Your task to perform on an android device: Go to Reddit.com Image 0: 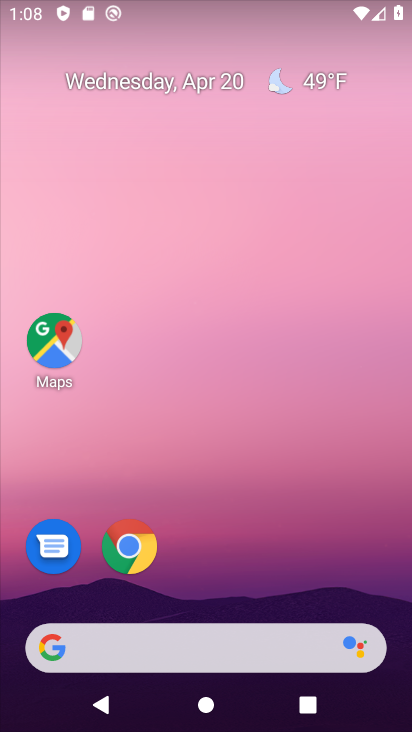
Step 0: drag from (259, 261) to (263, 163)
Your task to perform on an android device: Go to Reddit.com Image 1: 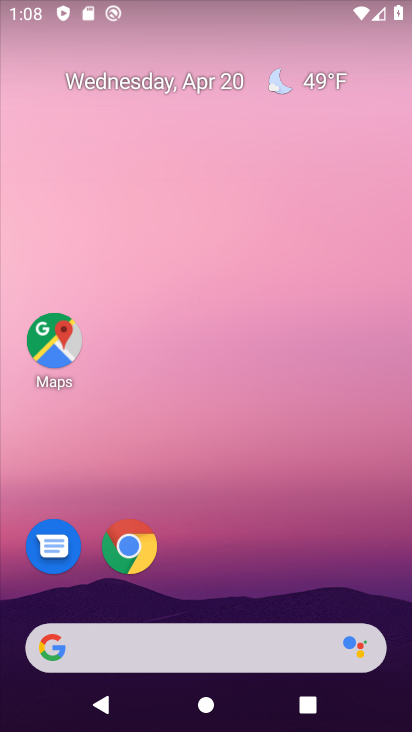
Step 1: drag from (306, 587) to (287, 167)
Your task to perform on an android device: Go to Reddit.com Image 2: 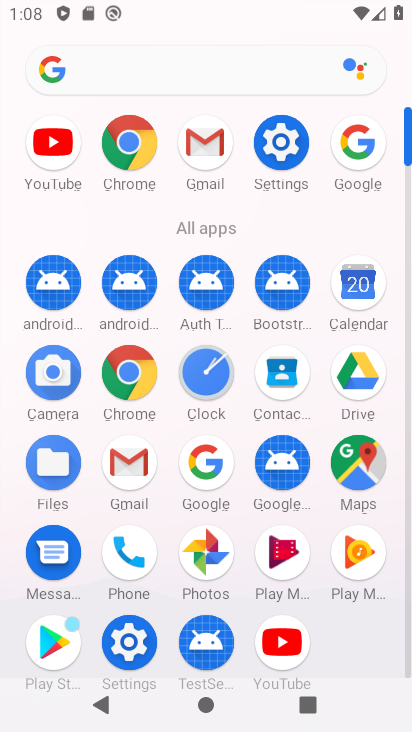
Step 2: click (130, 139)
Your task to perform on an android device: Go to Reddit.com Image 3: 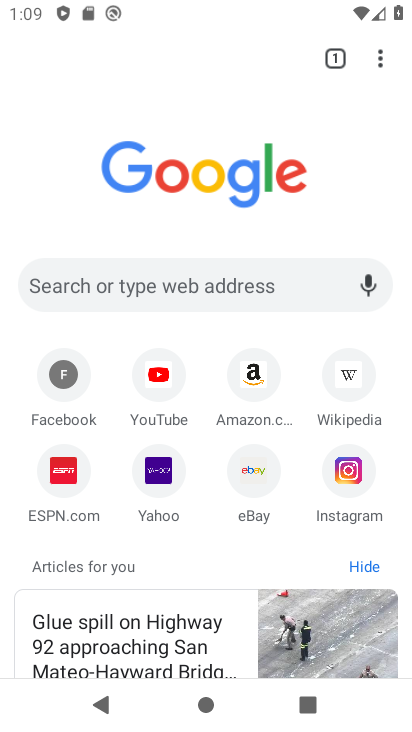
Step 3: click (199, 284)
Your task to perform on an android device: Go to Reddit.com Image 4: 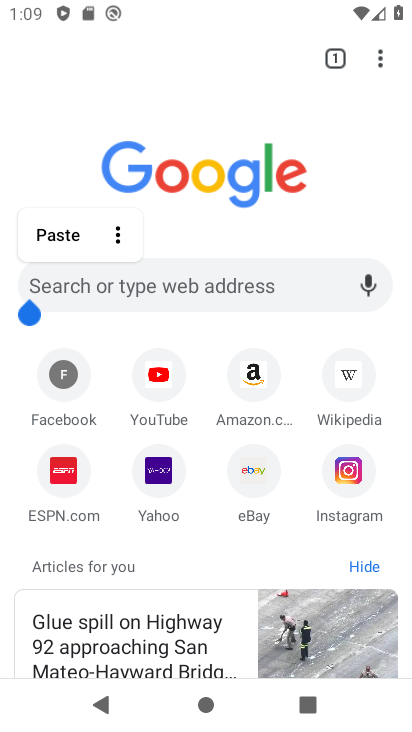
Step 4: type "Reddit.com"
Your task to perform on an android device: Go to Reddit.com Image 5: 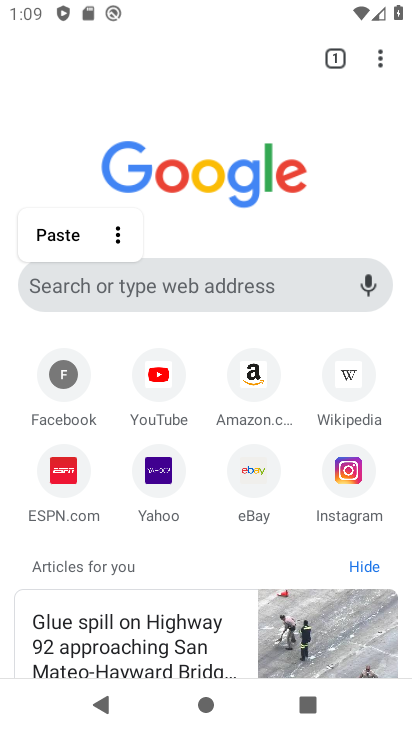
Step 5: click (210, 273)
Your task to perform on an android device: Go to Reddit.com Image 6: 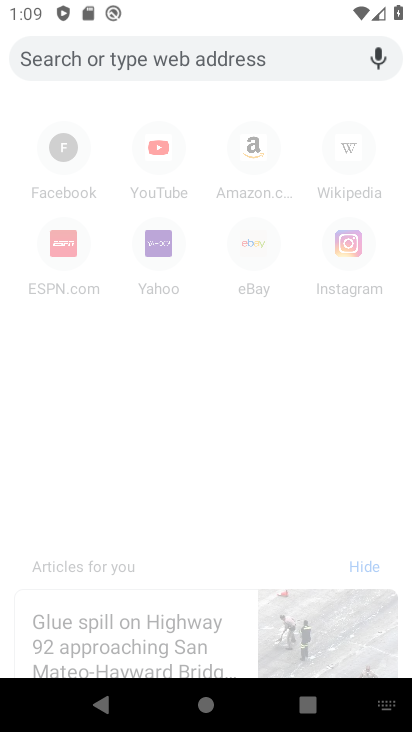
Step 6: type "Reddit.com"
Your task to perform on an android device: Go to Reddit.com Image 7: 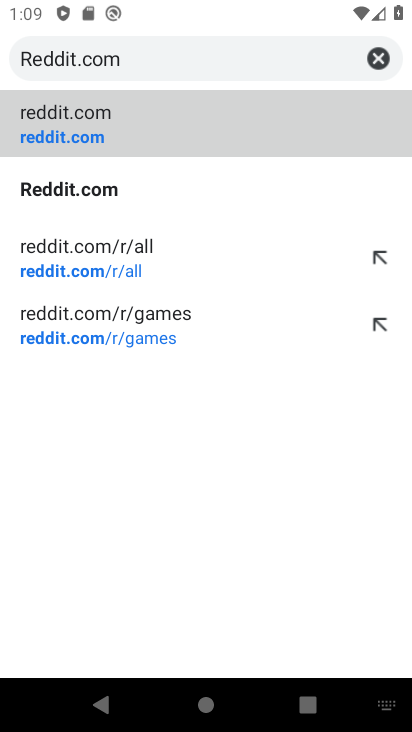
Step 7: click (124, 136)
Your task to perform on an android device: Go to Reddit.com Image 8: 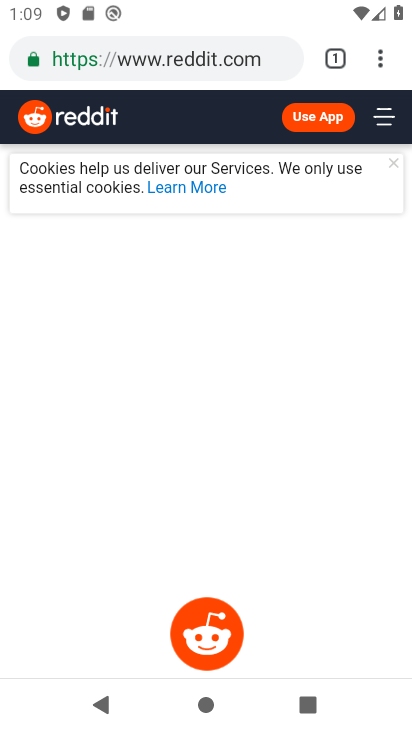
Step 8: task complete